Your task to perform on an android device: open a bookmark in the chrome app Image 0: 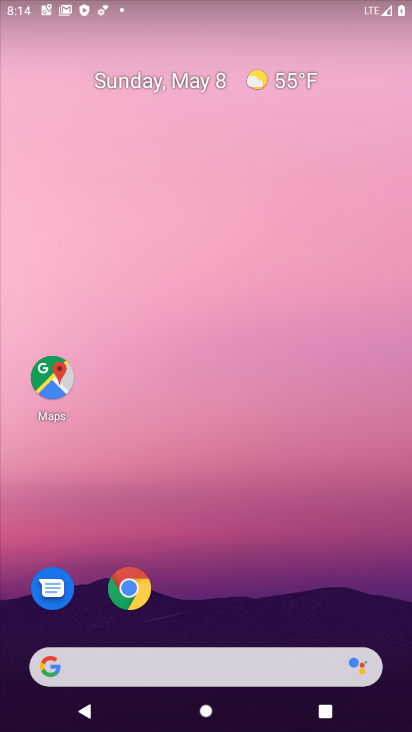
Step 0: drag from (312, 607) to (228, 46)
Your task to perform on an android device: open a bookmark in the chrome app Image 1: 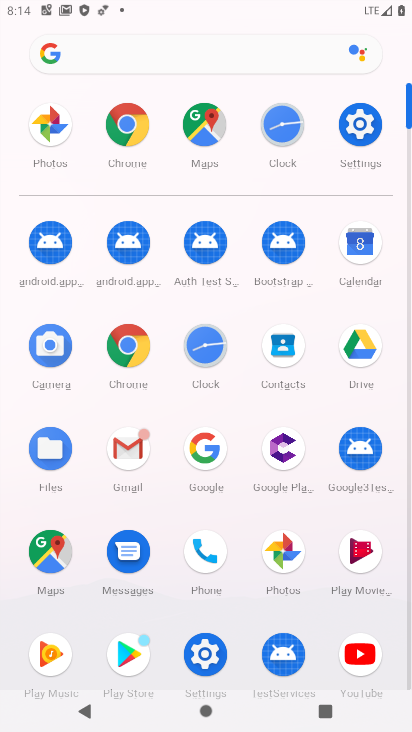
Step 1: click (127, 127)
Your task to perform on an android device: open a bookmark in the chrome app Image 2: 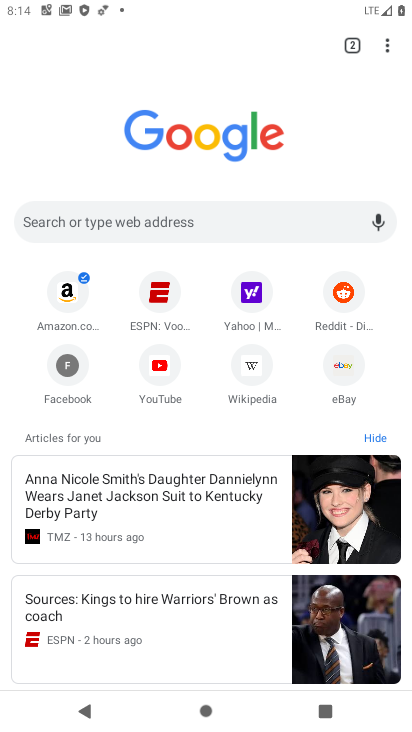
Step 2: click (391, 46)
Your task to perform on an android device: open a bookmark in the chrome app Image 3: 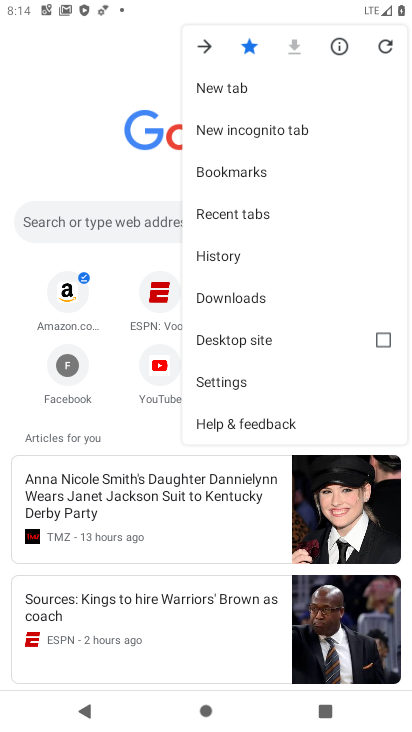
Step 3: click (276, 169)
Your task to perform on an android device: open a bookmark in the chrome app Image 4: 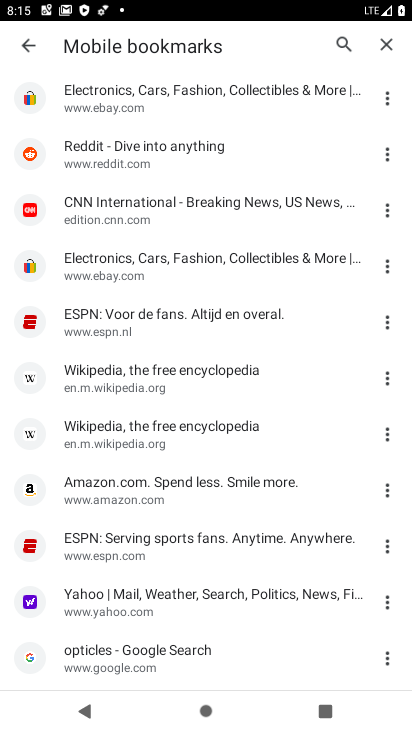
Step 4: task complete